Your task to perform on an android device: toggle airplane mode Image 0: 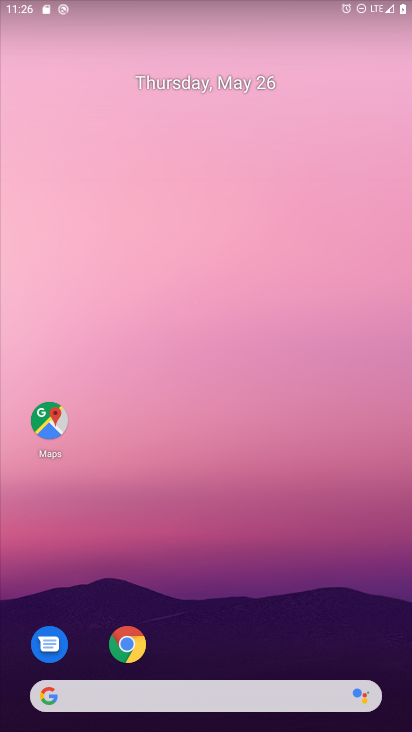
Step 0: drag from (351, 632) to (344, 145)
Your task to perform on an android device: toggle airplane mode Image 1: 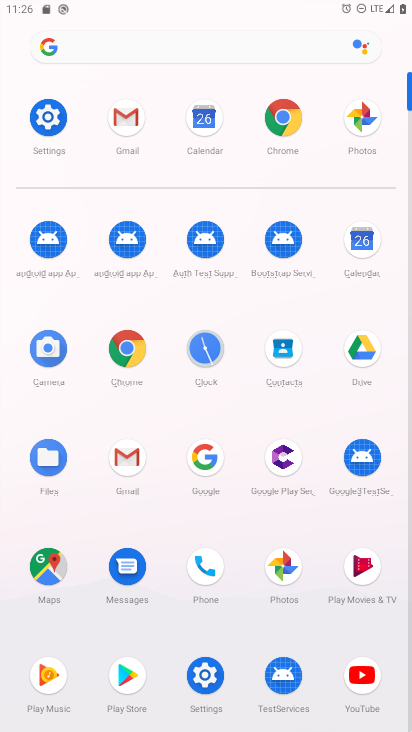
Step 1: click (34, 138)
Your task to perform on an android device: toggle airplane mode Image 2: 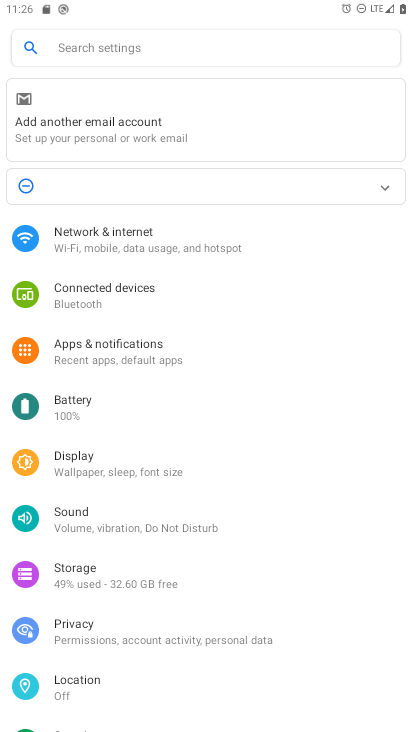
Step 2: drag from (348, 435) to (338, 336)
Your task to perform on an android device: toggle airplane mode Image 3: 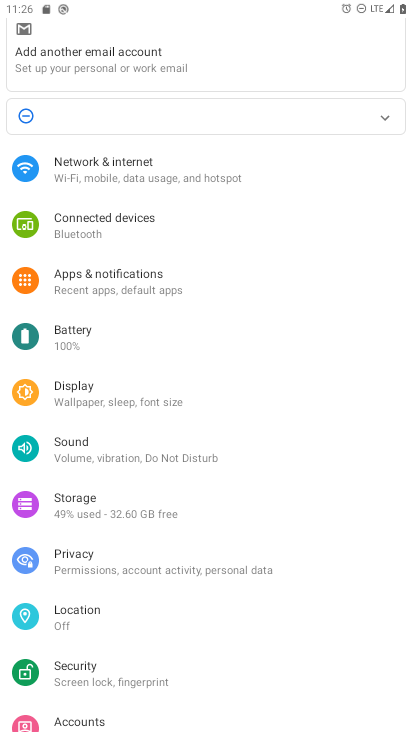
Step 3: drag from (337, 494) to (340, 394)
Your task to perform on an android device: toggle airplane mode Image 4: 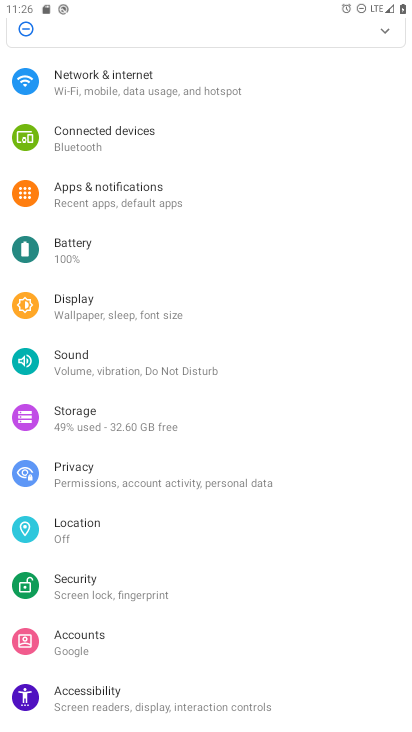
Step 4: drag from (332, 544) to (341, 385)
Your task to perform on an android device: toggle airplane mode Image 5: 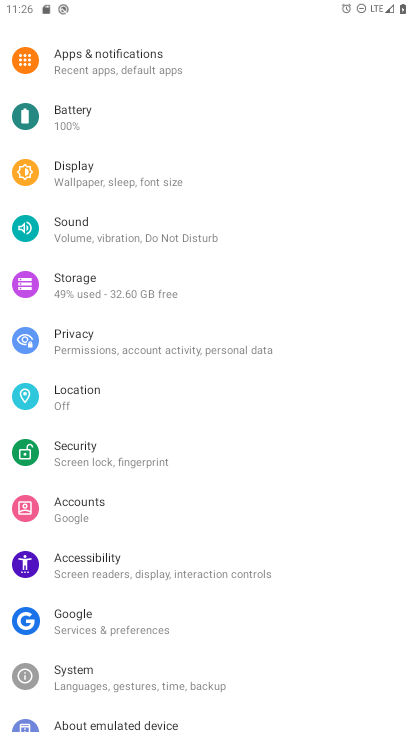
Step 5: drag from (329, 538) to (326, 374)
Your task to perform on an android device: toggle airplane mode Image 6: 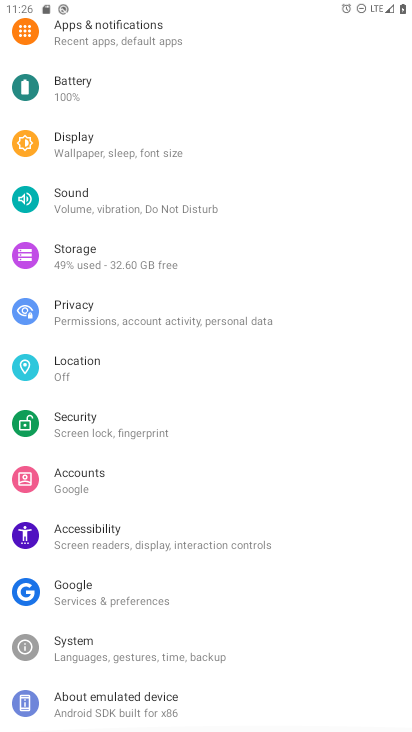
Step 6: drag from (336, 300) to (333, 409)
Your task to perform on an android device: toggle airplane mode Image 7: 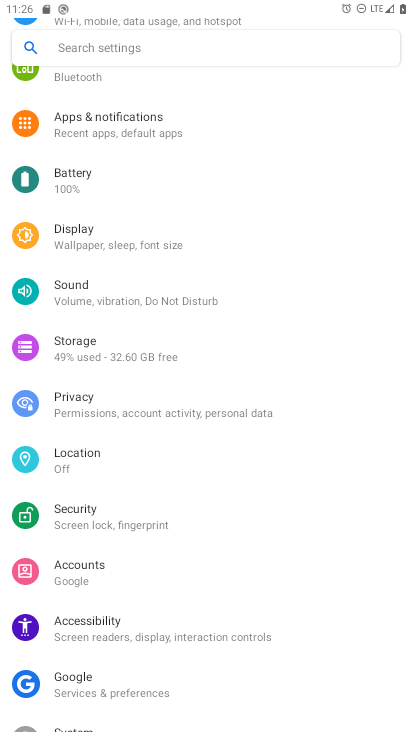
Step 7: drag from (337, 292) to (333, 407)
Your task to perform on an android device: toggle airplane mode Image 8: 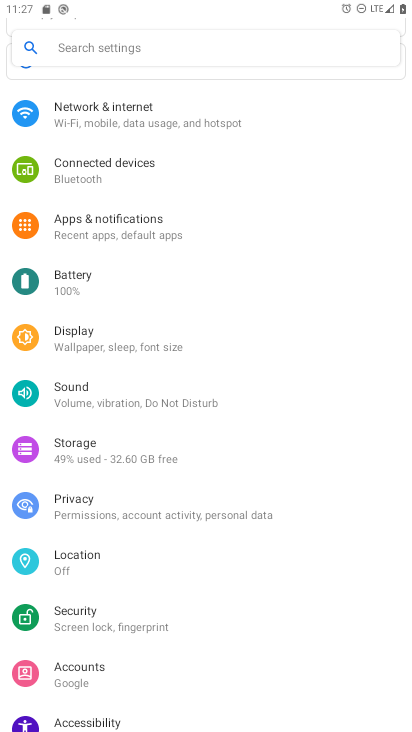
Step 8: drag from (324, 249) to (330, 382)
Your task to perform on an android device: toggle airplane mode Image 9: 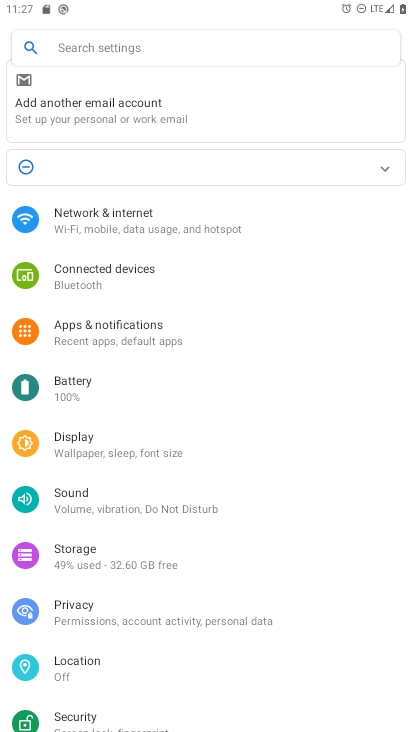
Step 9: drag from (340, 240) to (334, 393)
Your task to perform on an android device: toggle airplane mode Image 10: 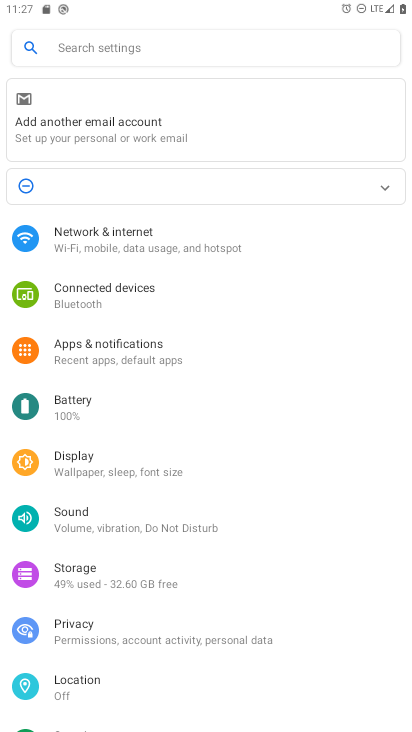
Step 10: click (194, 248)
Your task to perform on an android device: toggle airplane mode Image 11: 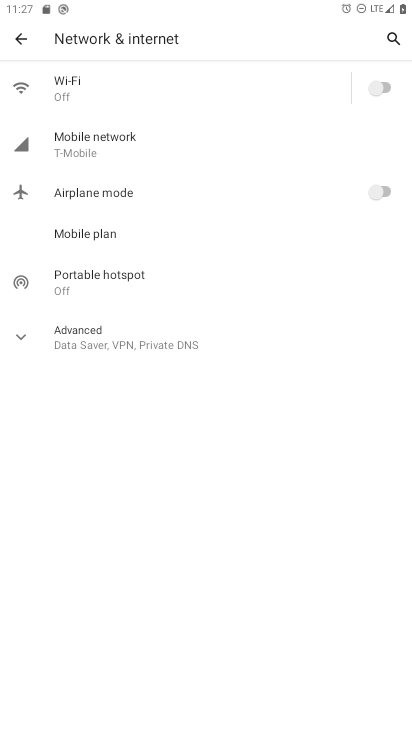
Step 11: click (389, 190)
Your task to perform on an android device: toggle airplane mode Image 12: 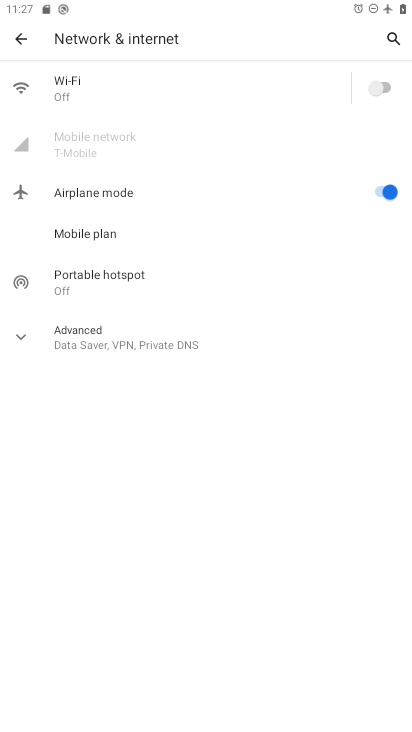
Step 12: task complete